Your task to perform on an android device: toggle pop-ups in chrome Image 0: 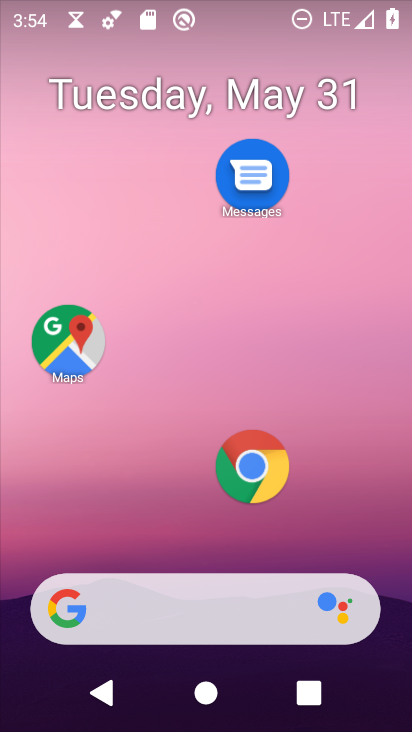
Step 0: click (244, 478)
Your task to perform on an android device: toggle pop-ups in chrome Image 1: 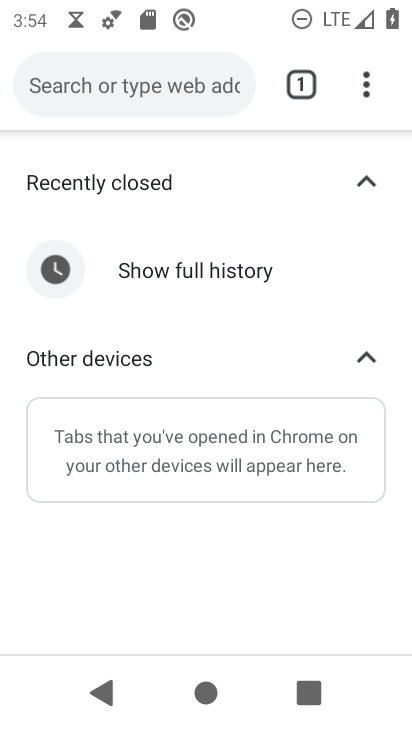
Step 1: click (356, 82)
Your task to perform on an android device: toggle pop-ups in chrome Image 2: 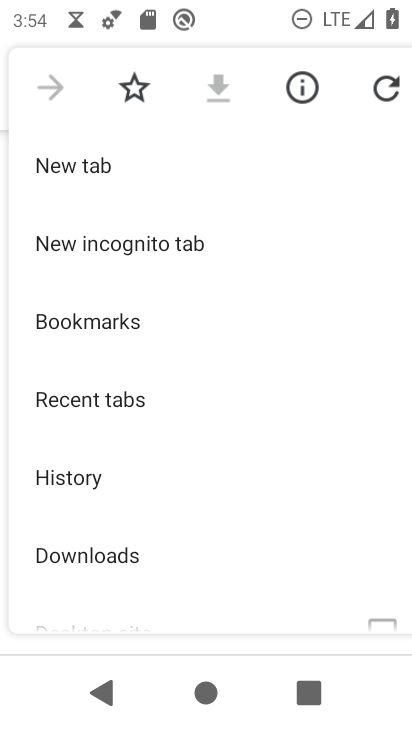
Step 2: drag from (111, 543) to (223, 69)
Your task to perform on an android device: toggle pop-ups in chrome Image 3: 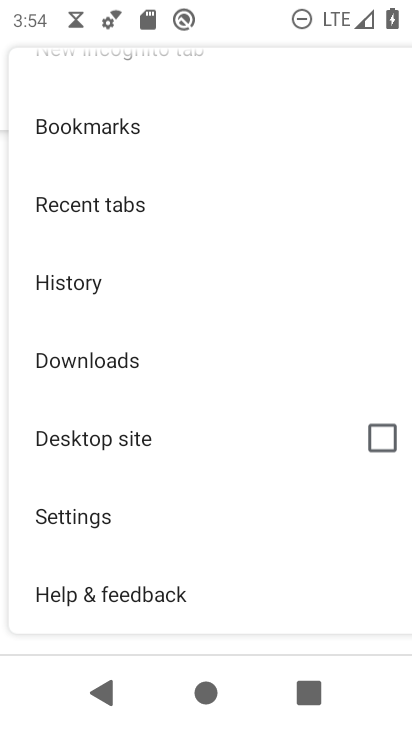
Step 3: click (111, 516)
Your task to perform on an android device: toggle pop-ups in chrome Image 4: 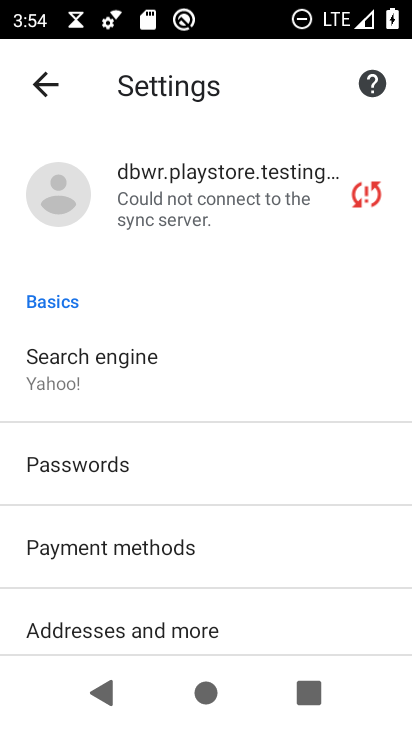
Step 4: drag from (163, 621) to (218, 146)
Your task to perform on an android device: toggle pop-ups in chrome Image 5: 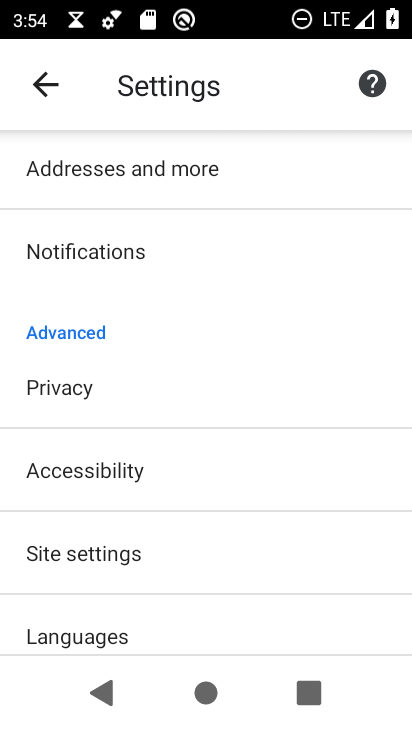
Step 5: click (109, 556)
Your task to perform on an android device: toggle pop-ups in chrome Image 6: 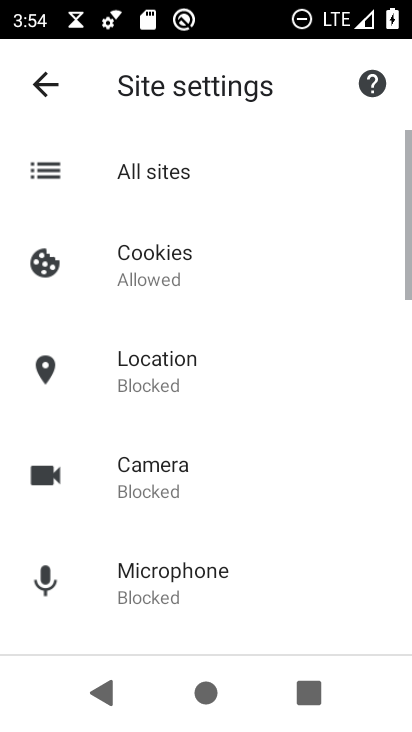
Step 6: drag from (136, 579) to (202, 76)
Your task to perform on an android device: toggle pop-ups in chrome Image 7: 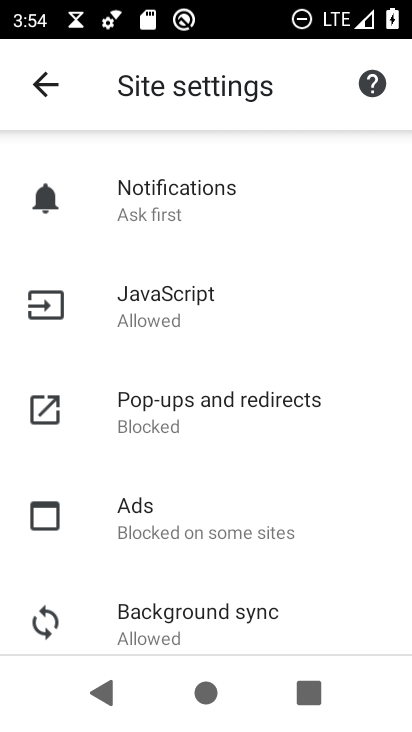
Step 7: click (147, 397)
Your task to perform on an android device: toggle pop-ups in chrome Image 8: 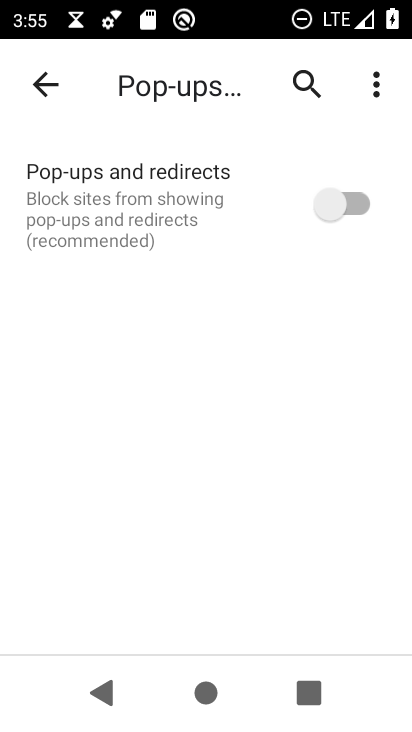
Step 8: click (350, 207)
Your task to perform on an android device: toggle pop-ups in chrome Image 9: 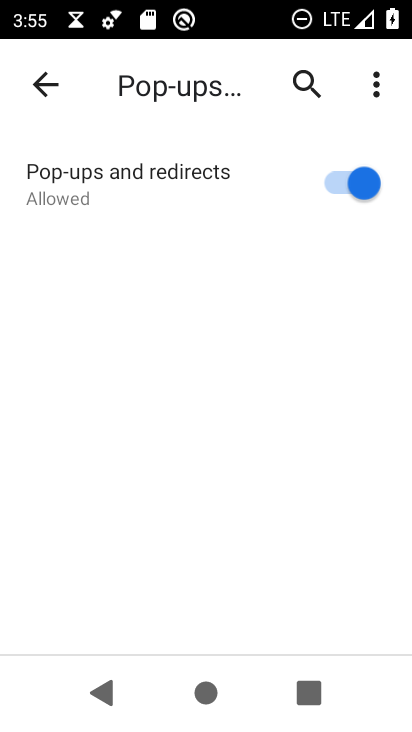
Step 9: task complete